Your task to perform on an android device: open the mobile data screen to see how much data has been used Image 0: 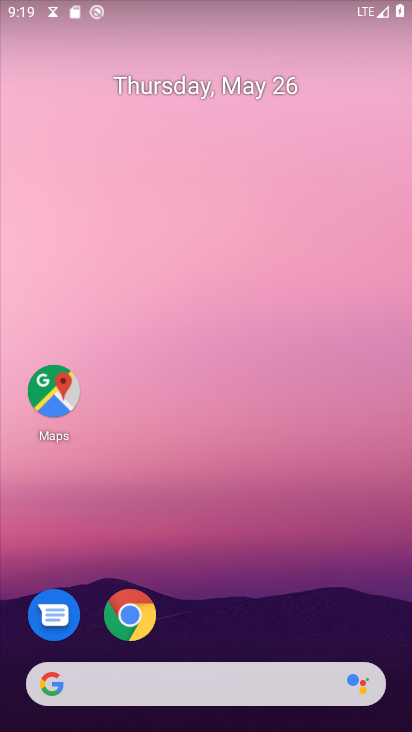
Step 0: drag from (226, 631) to (290, 192)
Your task to perform on an android device: open the mobile data screen to see how much data has been used Image 1: 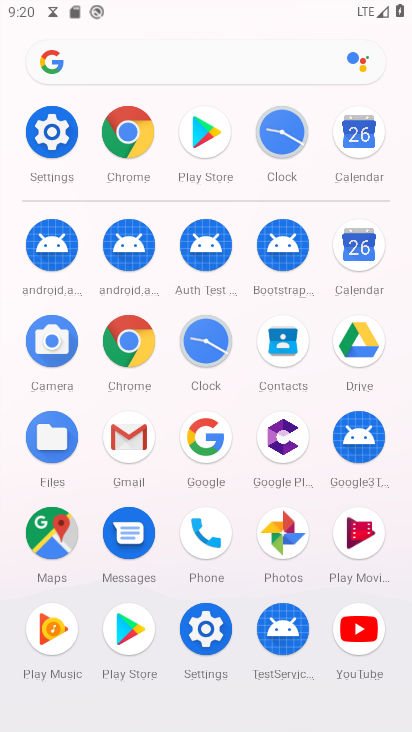
Step 1: click (52, 131)
Your task to perform on an android device: open the mobile data screen to see how much data has been used Image 2: 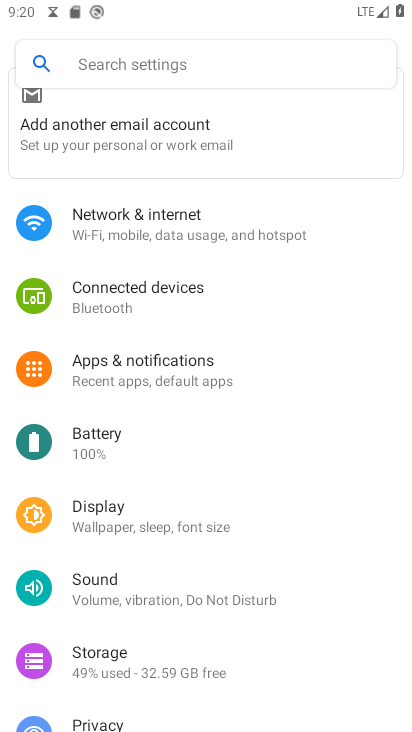
Step 2: click (159, 222)
Your task to perform on an android device: open the mobile data screen to see how much data has been used Image 3: 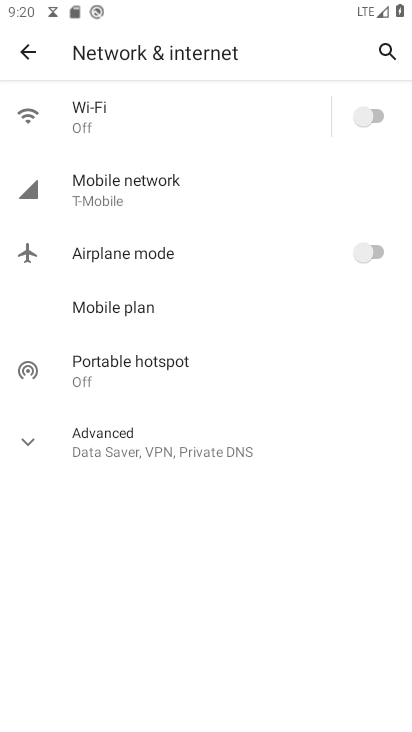
Step 3: click (127, 187)
Your task to perform on an android device: open the mobile data screen to see how much data has been used Image 4: 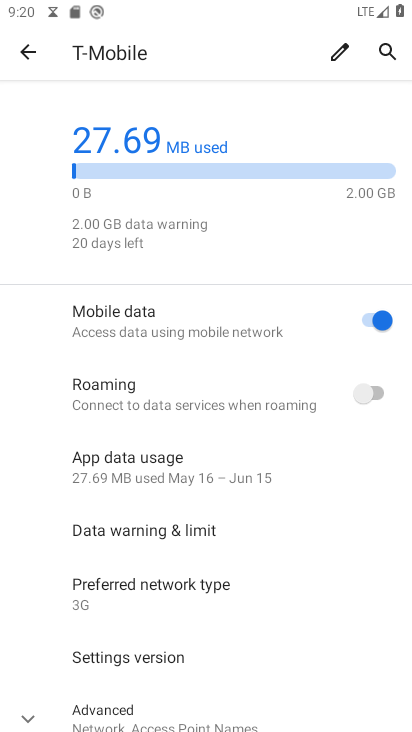
Step 4: task complete